Your task to perform on an android device: Toggle the flashlight Image 0: 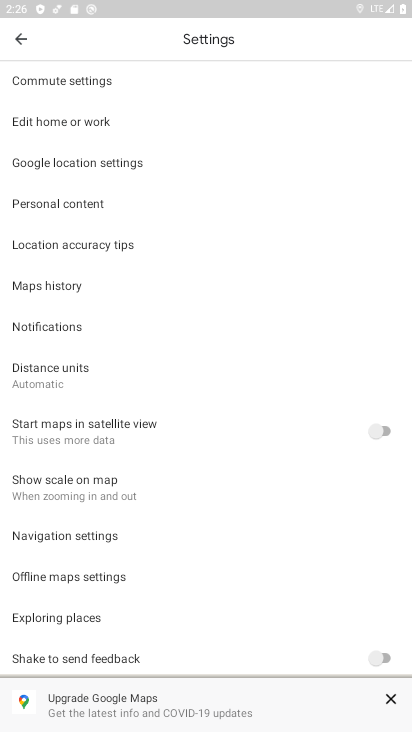
Step 0: press home button
Your task to perform on an android device: Toggle the flashlight Image 1: 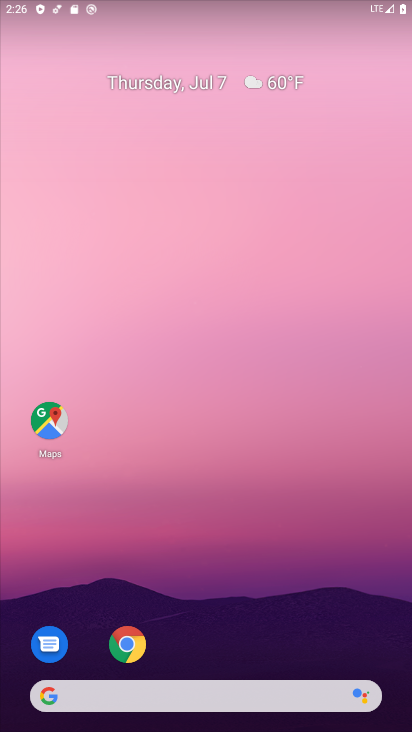
Step 1: drag from (218, 6) to (231, 302)
Your task to perform on an android device: Toggle the flashlight Image 2: 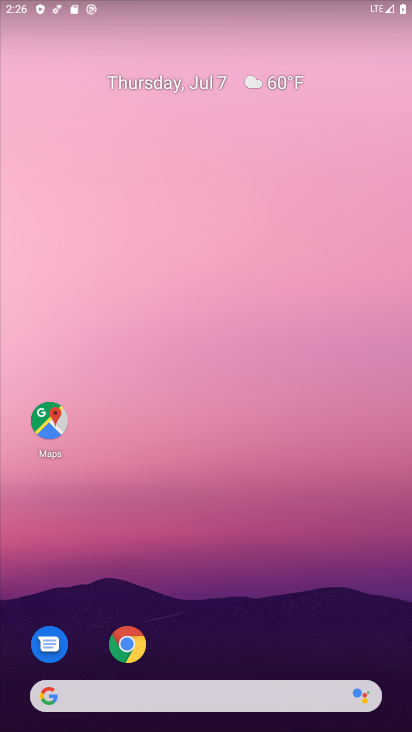
Step 2: drag from (172, 9) to (158, 335)
Your task to perform on an android device: Toggle the flashlight Image 3: 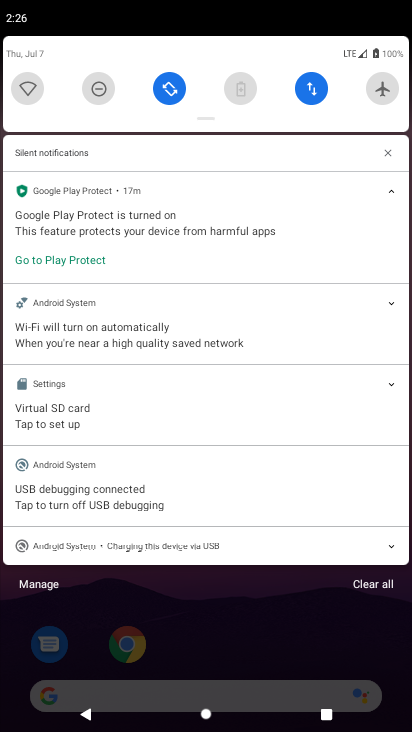
Step 3: drag from (210, 123) to (223, 374)
Your task to perform on an android device: Toggle the flashlight Image 4: 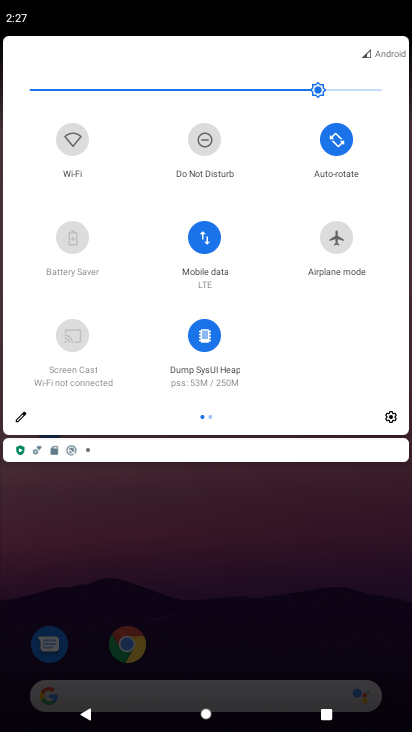
Step 4: drag from (331, 343) to (23, 349)
Your task to perform on an android device: Toggle the flashlight Image 5: 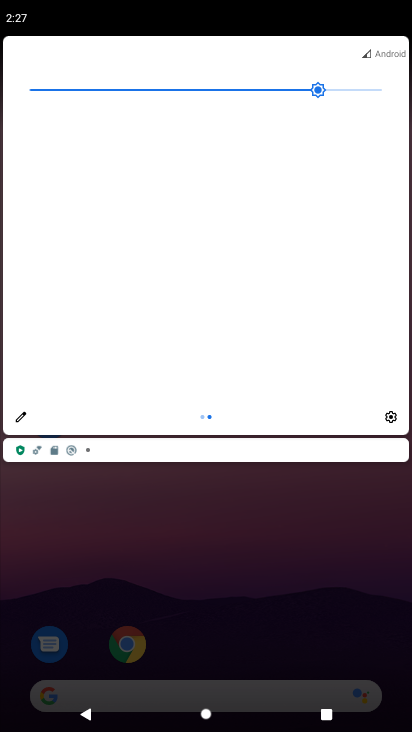
Step 5: click (13, 417)
Your task to perform on an android device: Toggle the flashlight Image 6: 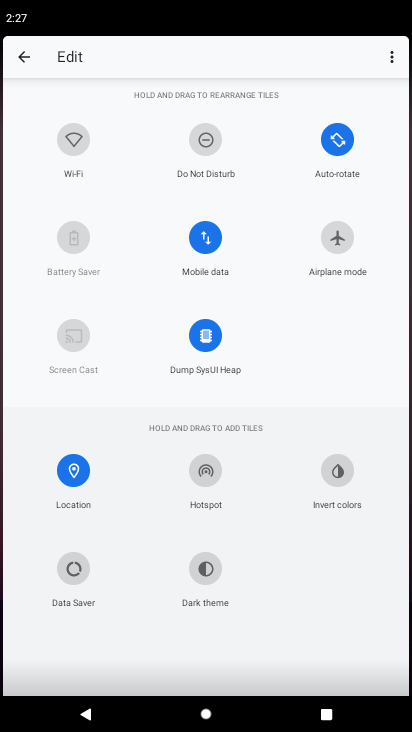
Step 6: task complete